Your task to perform on an android device: Check the weather Image 0: 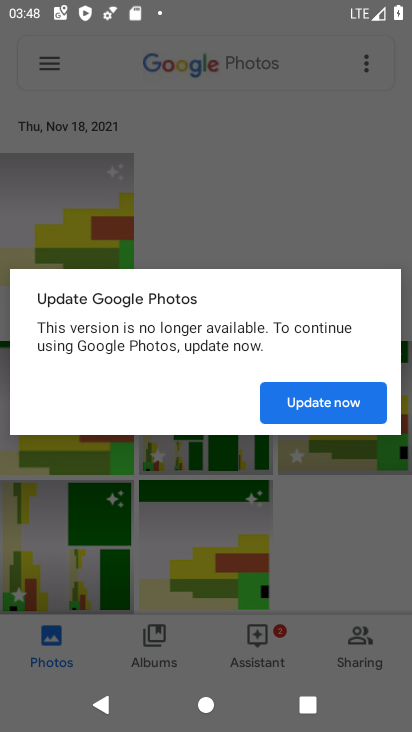
Step 0: press home button
Your task to perform on an android device: Check the weather Image 1: 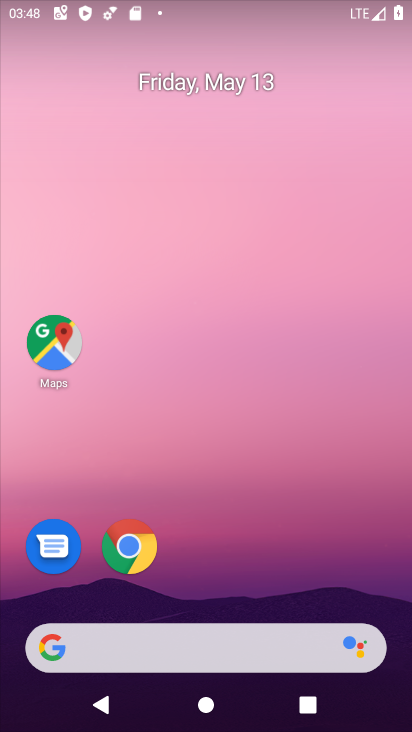
Step 1: click (186, 663)
Your task to perform on an android device: Check the weather Image 2: 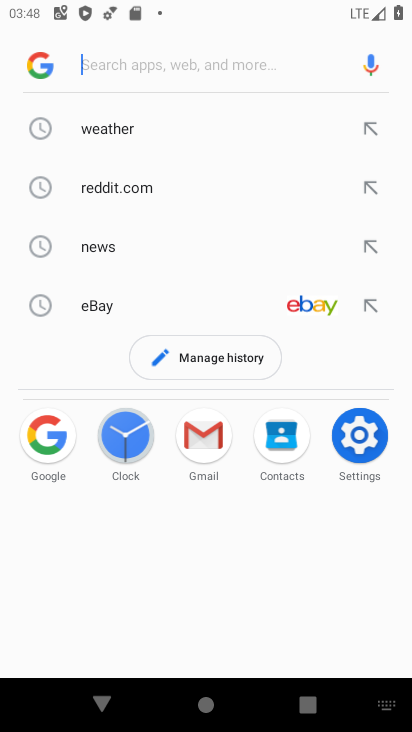
Step 2: click (81, 134)
Your task to perform on an android device: Check the weather Image 3: 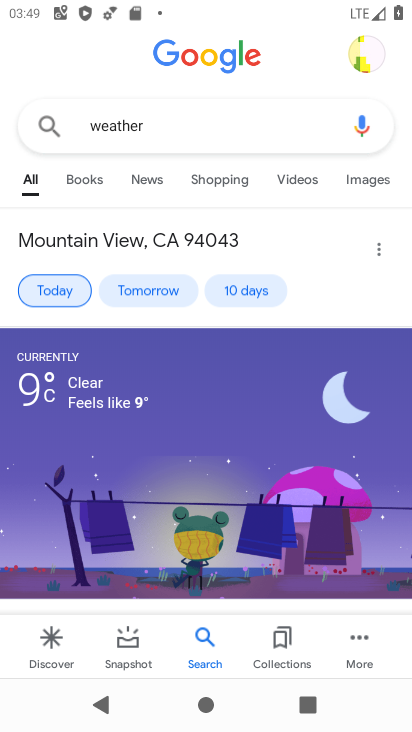
Step 3: task complete